Your task to perform on an android device: Show the shopping cart on walmart. Search for "macbook" on walmart, select the first entry, and add it to the cart. Image 0: 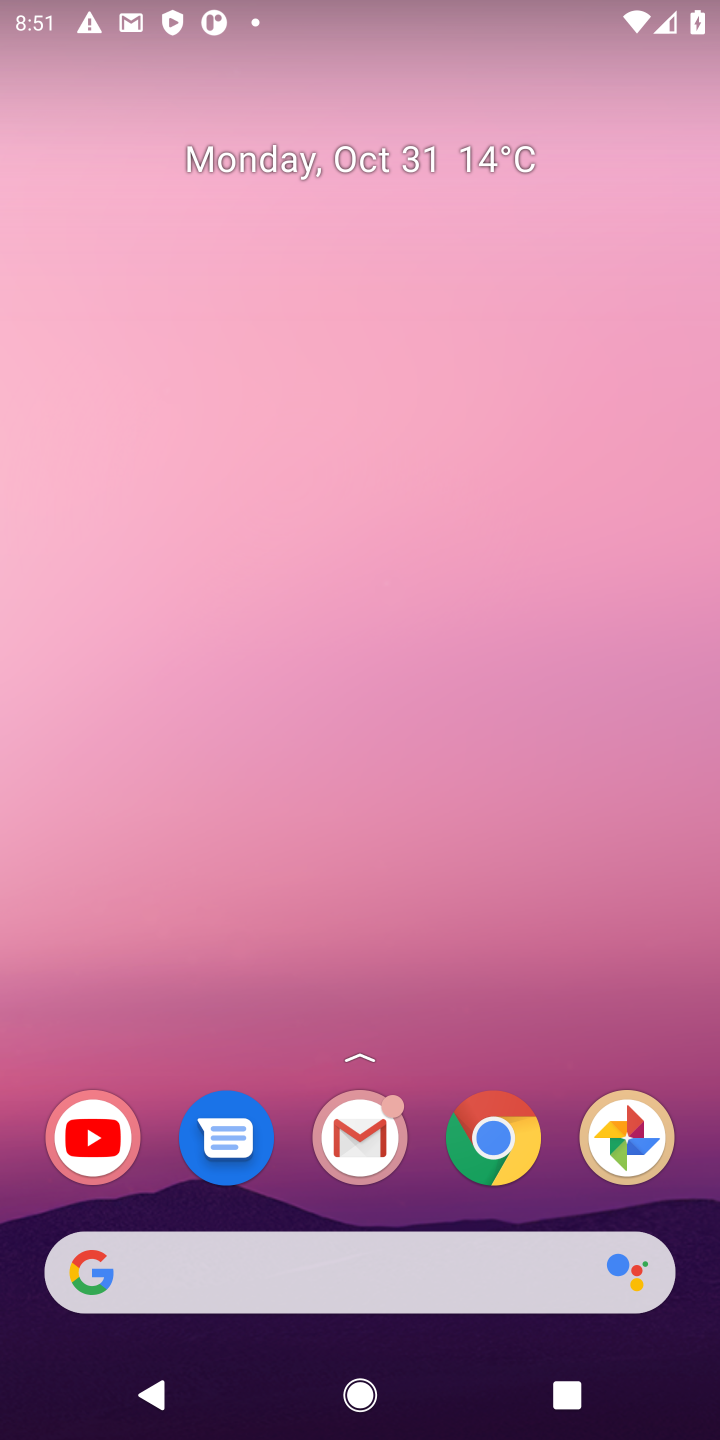
Step 0: click (473, 1149)
Your task to perform on an android device: Show the shopping cart on walmart. Search for "macbook" on walmart, select the first entry, and add it to the cart. Image 1: 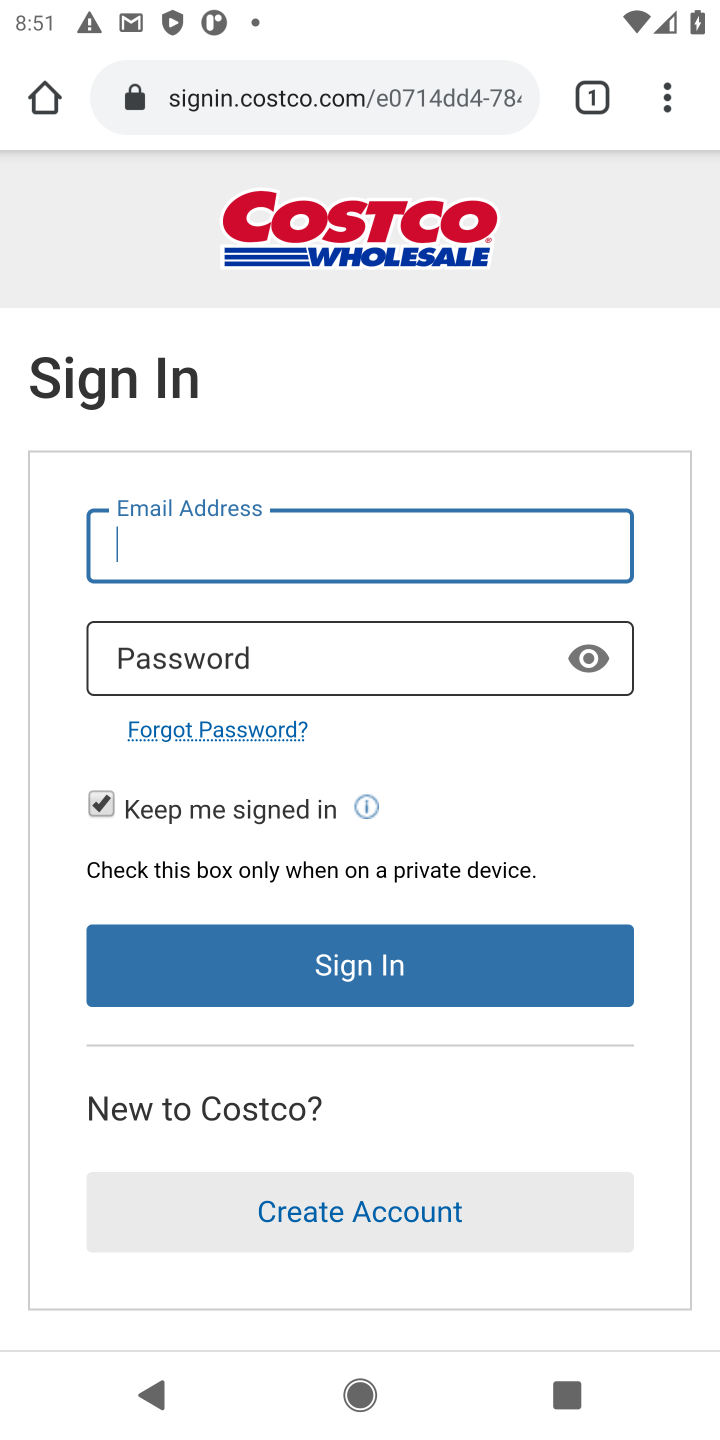
Step 1: click (352, 84)
Your task to perform on an android device: Show the shopping cart on walmart. Search for "macbook" on walmart, select the first entry, and add it to the cart. Image 2: 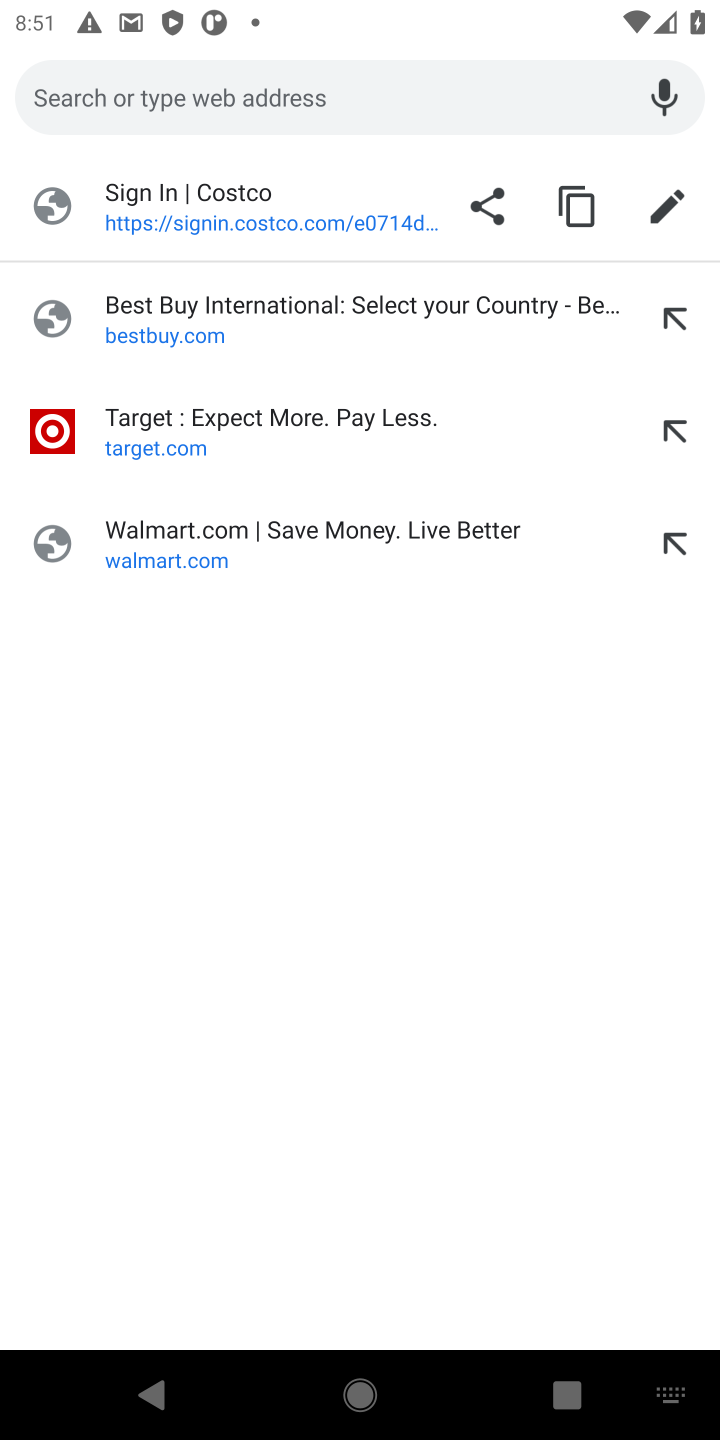
Step 2: type "walmart"
Your task to perform on an android device: Show the shopping cart on walmart. Search for "macbook" on walmart, select the first entry, and add it to the cart. Image 3: 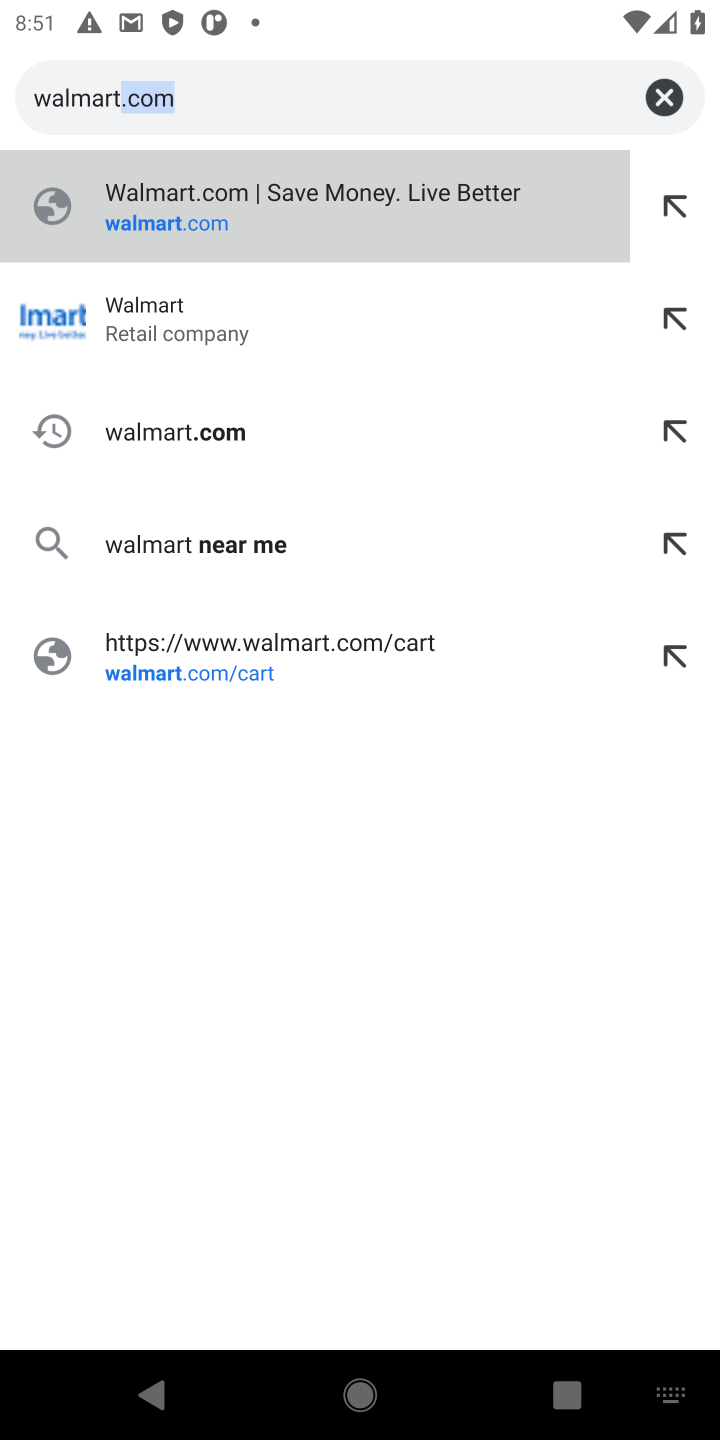
Step 3: type ""
Your task to perform on an android device: Show the shopping cart on walmart. Search for "macbook" on walmart, select the first entry, and add it to the cart. Image 4: 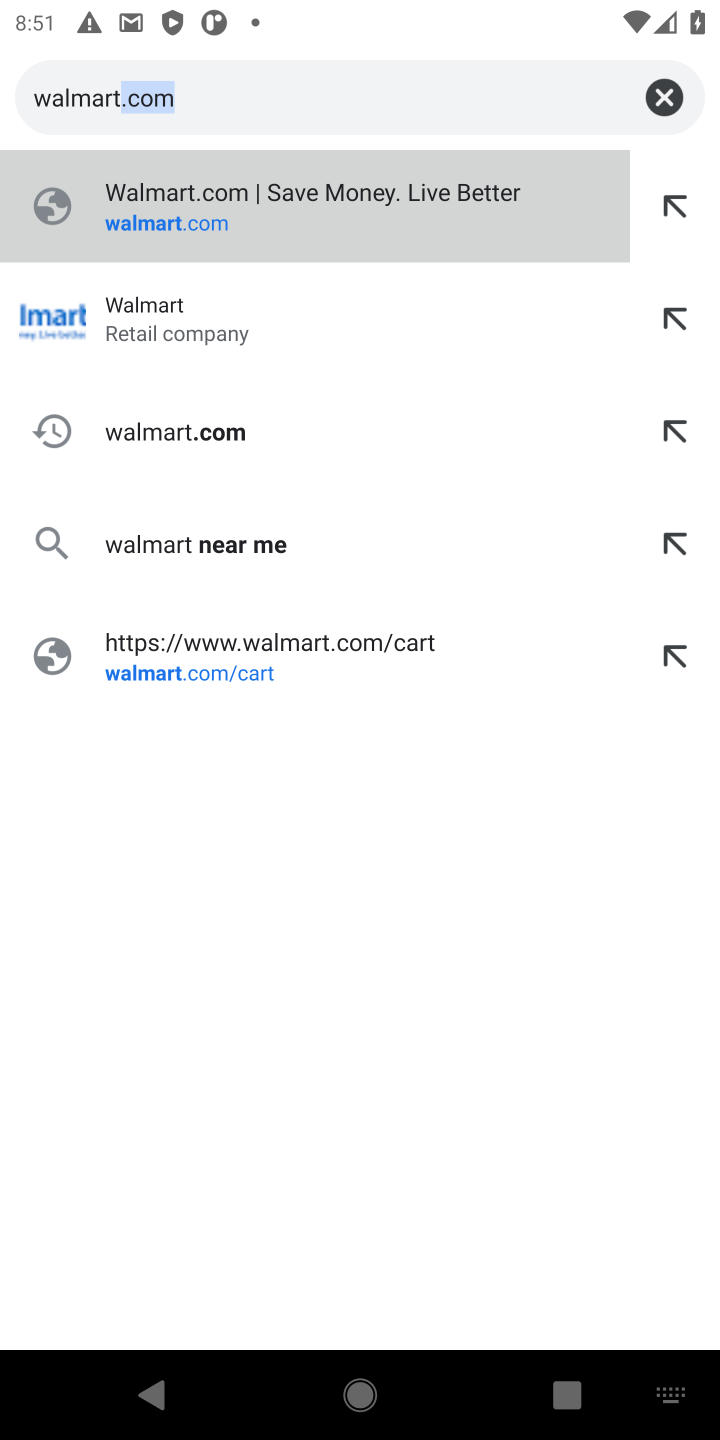
Step 4: click (119, 310)
Your task to perform on an android device: Show the shopping cart on walmart. Search for "macbook" on walmart, select the first entry, and add it to the cart. Image 5: 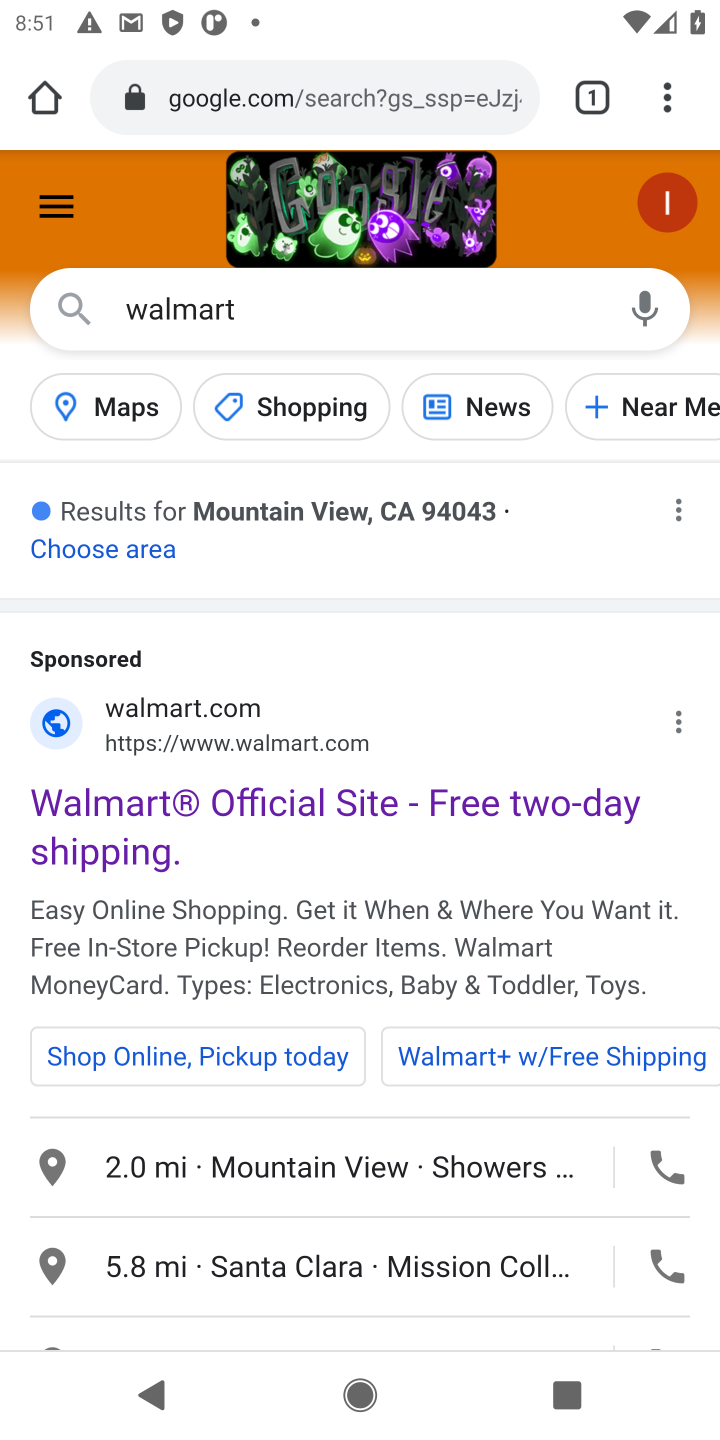
Step 5: drag from (280, 893) to (350, 451)
Your task to perform on an android device: Show the shopping cart on walmart. Search for "macbook" on walmart, select the first entry, and add it to the cart. Image 6: 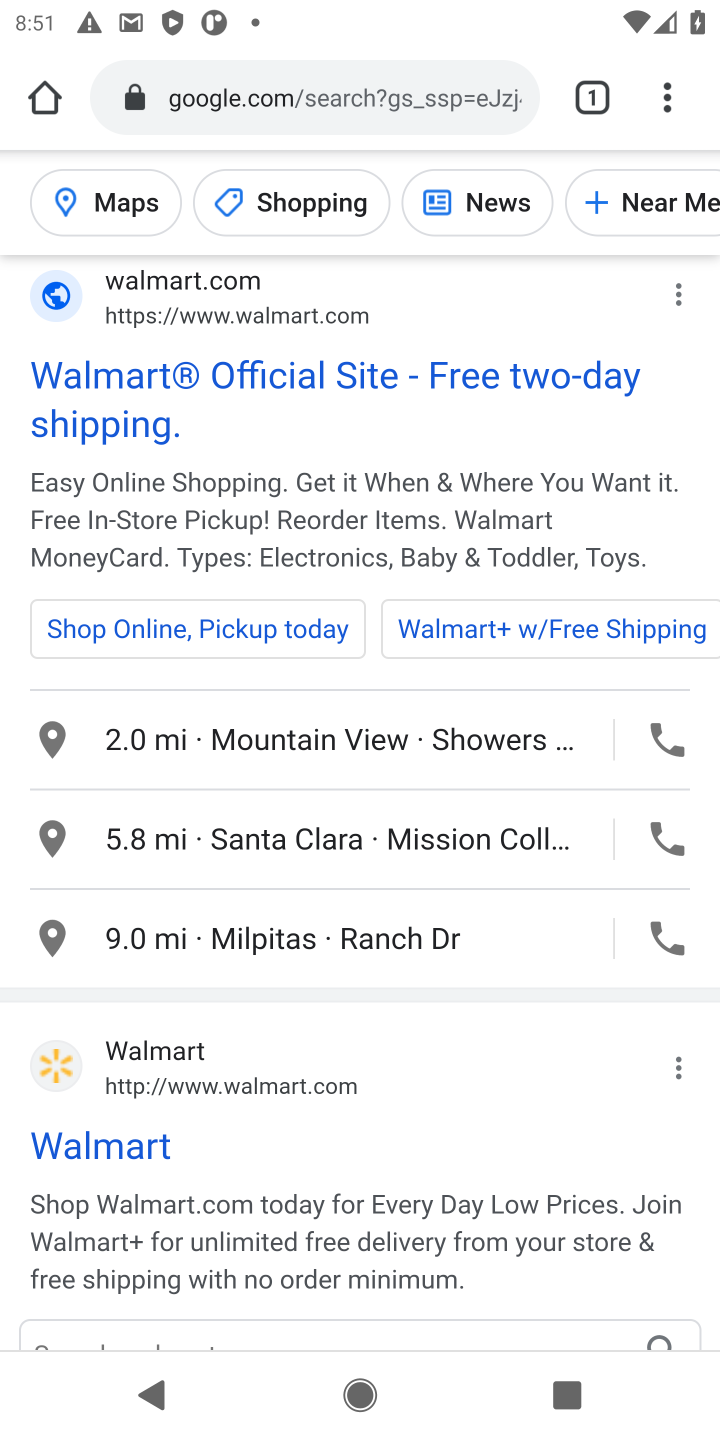
Step 6: click (106, 1139)
Your task to perform on an android device: Show the shopping cart on walmart. Search for "macbook" on walmart, select the first entry, and add it to the cart. Image 7: 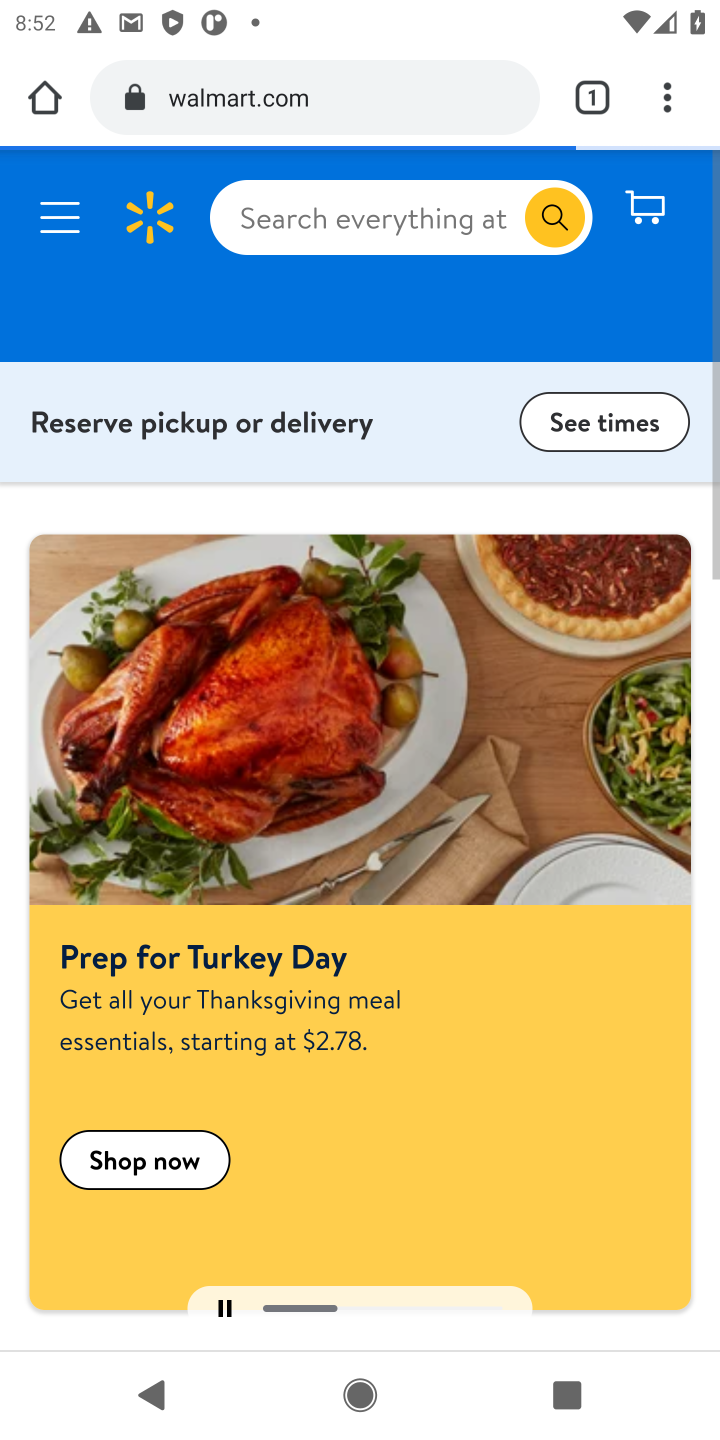
Step 7: click (268, 211)
Your task to perform on an android device: Show the shopping cart on walmart. Search for "macbook" on walmart, select the first entry, and add it to the cart. Image 8: 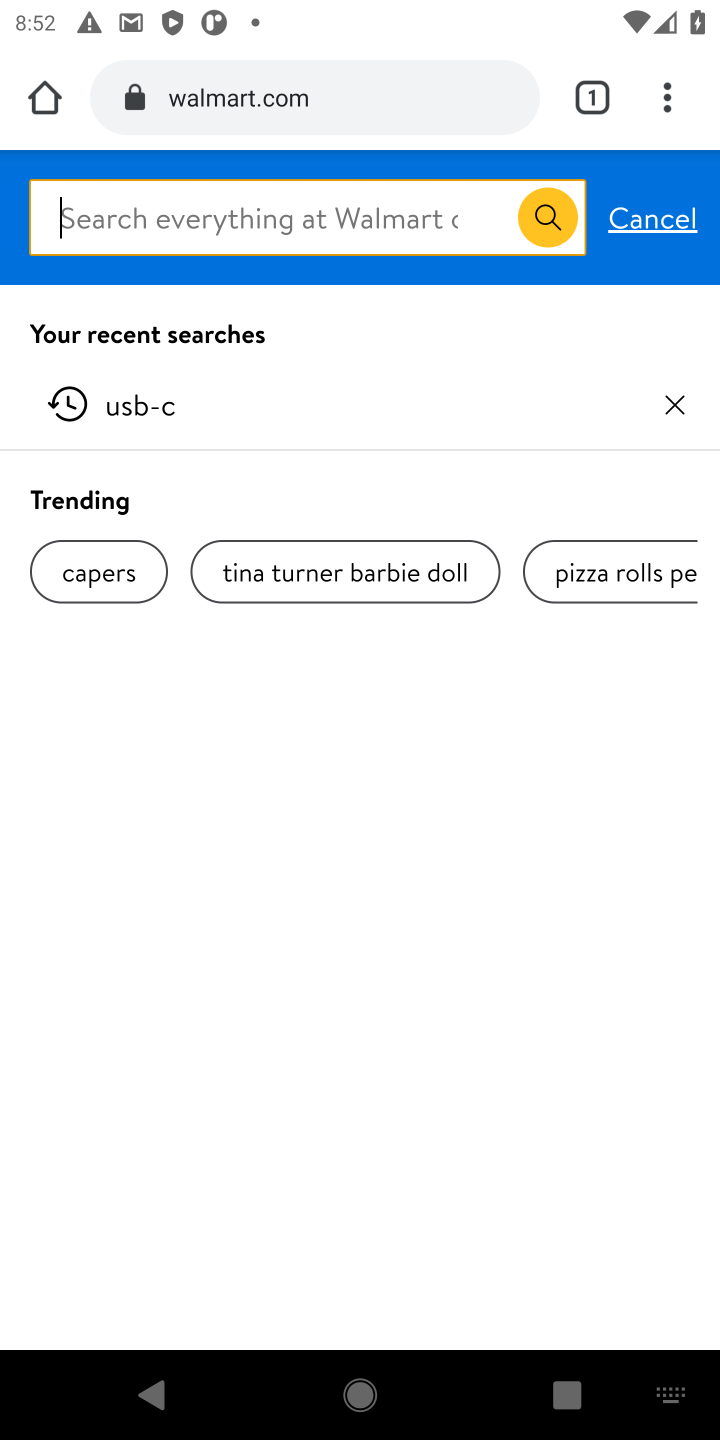
Step 8: type "macbook"
Your task to perform on an android device: Show the shopping cart on walmart. Search for "macbook" on walmart, select the first entry, and add it to the cart. Image 9: 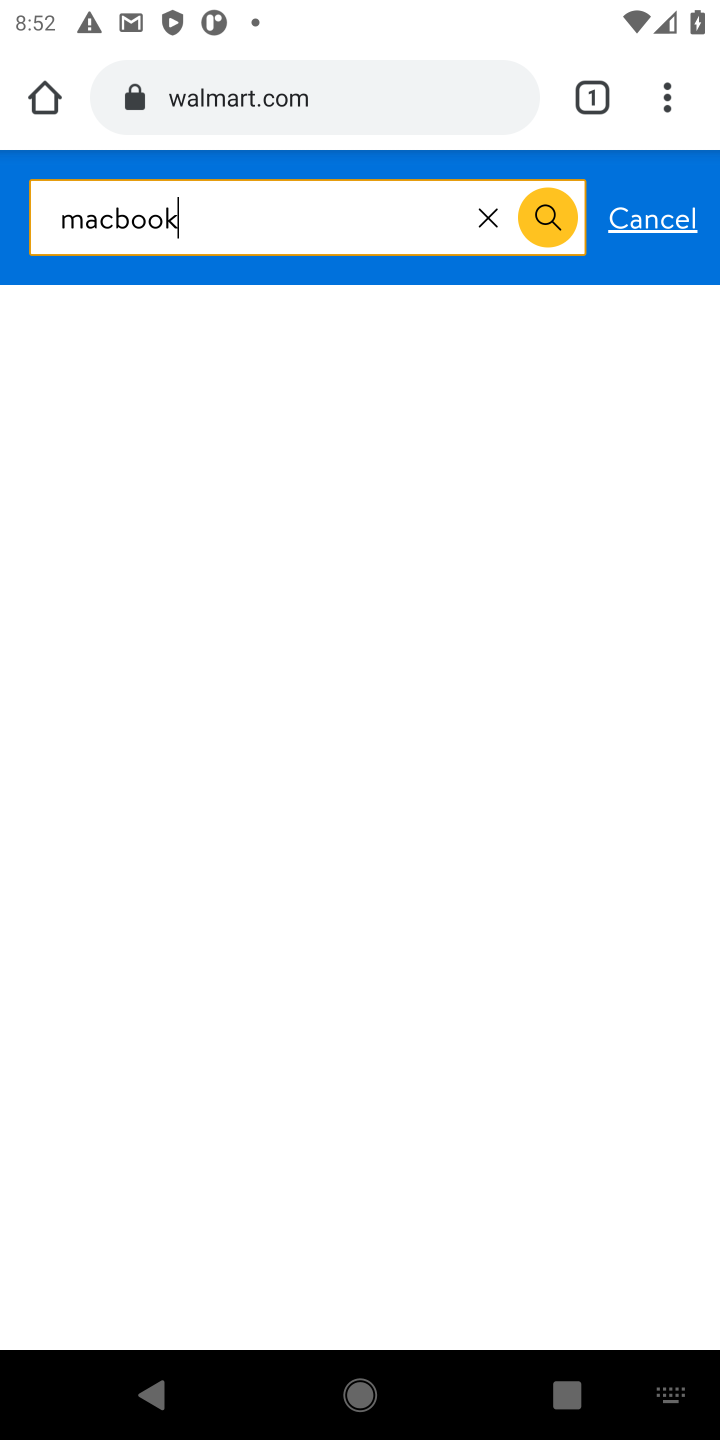
Step 9: type ""
Your task to perform on an android device: Show the shopping cart on walmart. Search for "macbook" on walmart, select the first entry, and add it to the cart. Image 10: 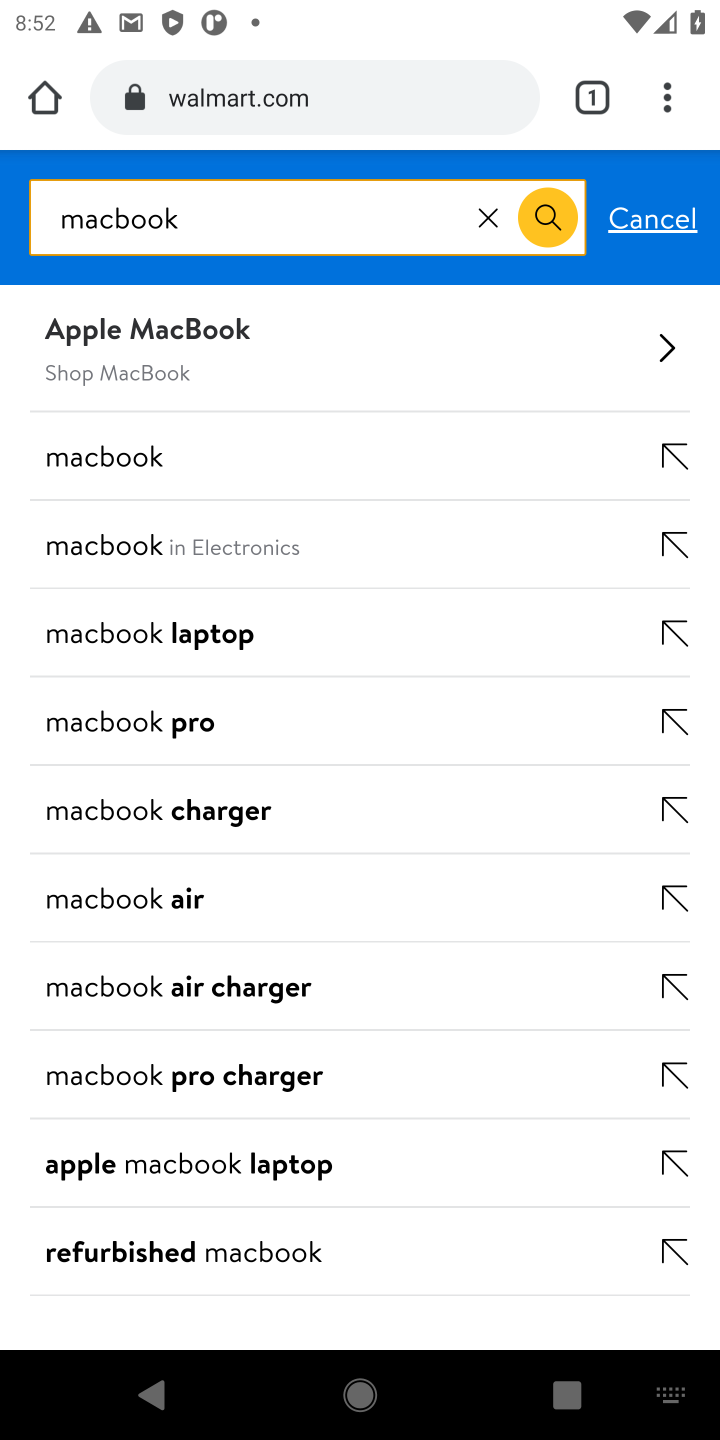
Step 10: click (133, 457)
Your task to perform on an android device: Show the shopping cart on walmart. Search for "macbook" on walmart, select the first entry, and add it to the cart. Image 11: 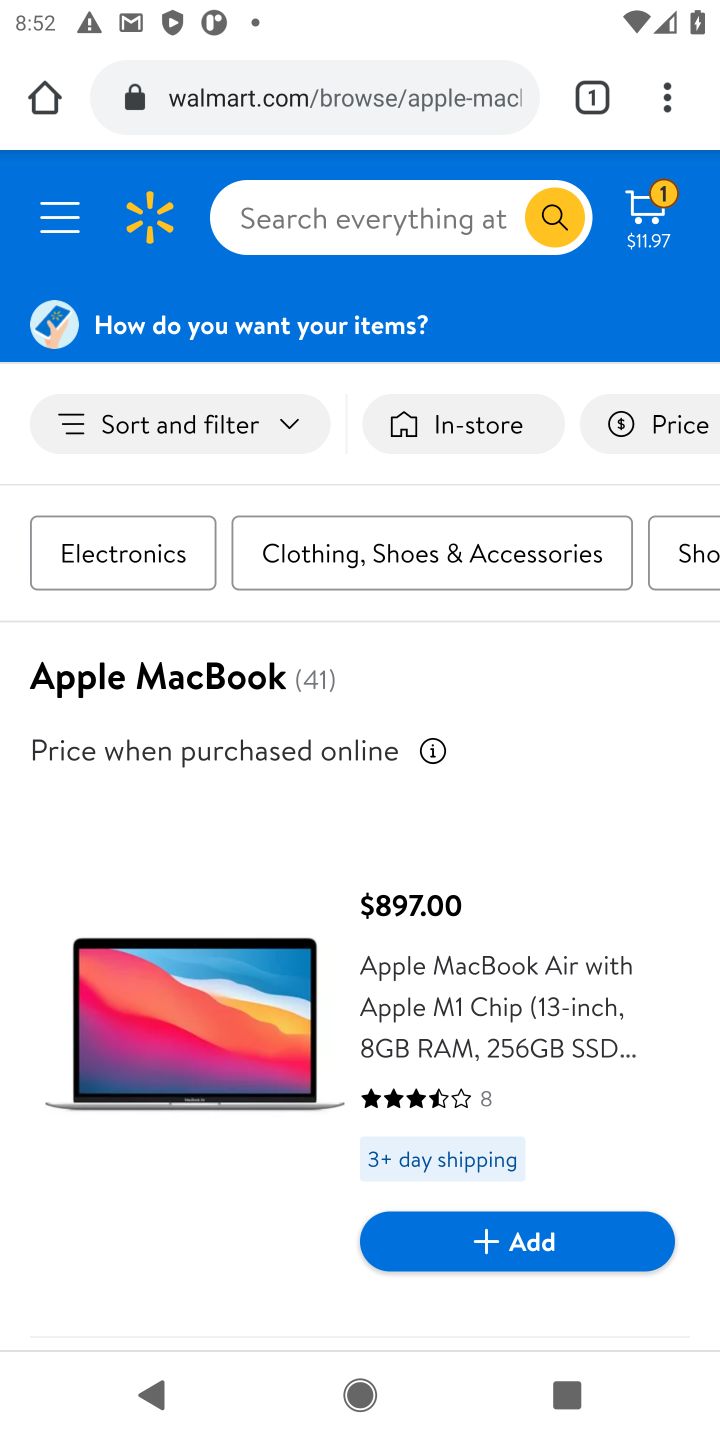
Step 11: drag from (167, 1085) to (166, 624)
Your task to perform on an android device: Show the shopping cart on walmart. Search for "macbook" on walmart, select the first entry, and add it to the cart. Image 12: 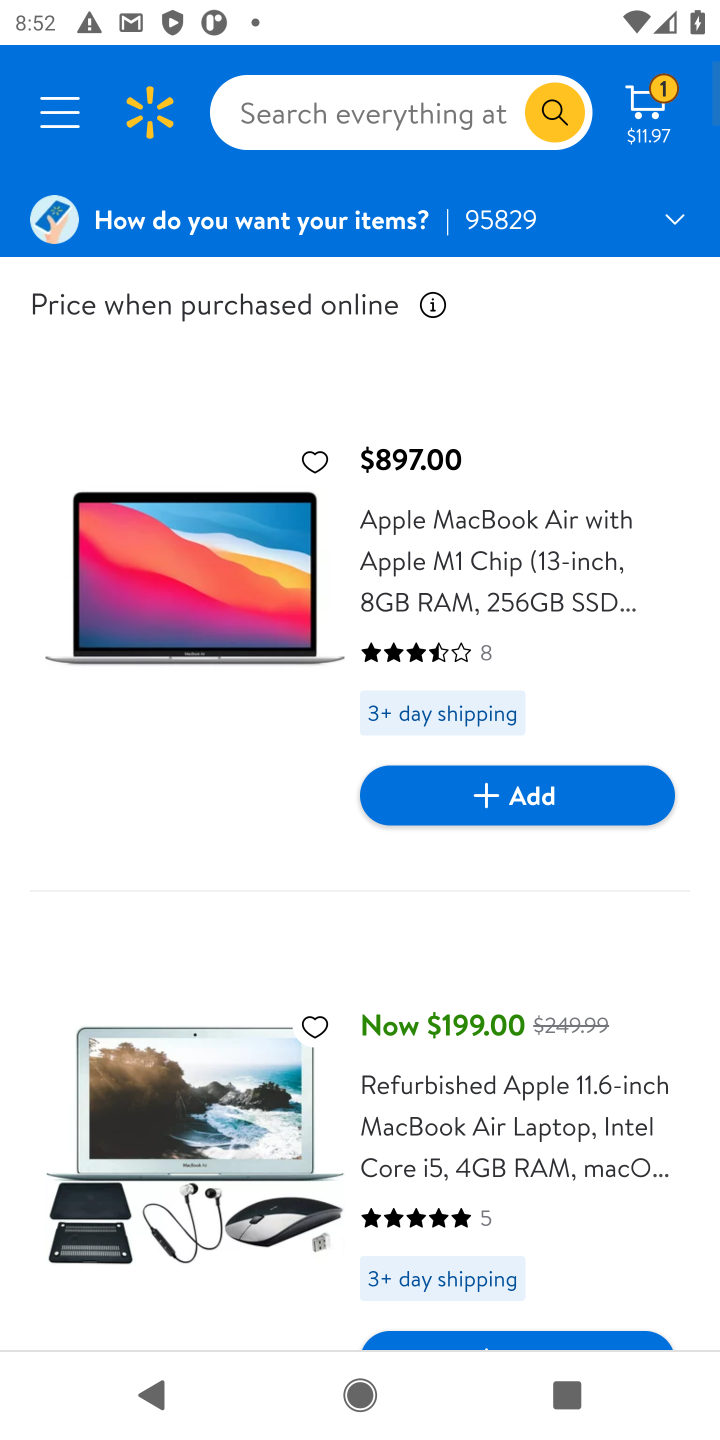
Step 12: drag from (235, 1014) to (195, 694)
Your task to perform on an android device: Show the shopping cart on walmart. Search for "macbook" on walmart, select the first entry, and add it to the cart. Image 13: 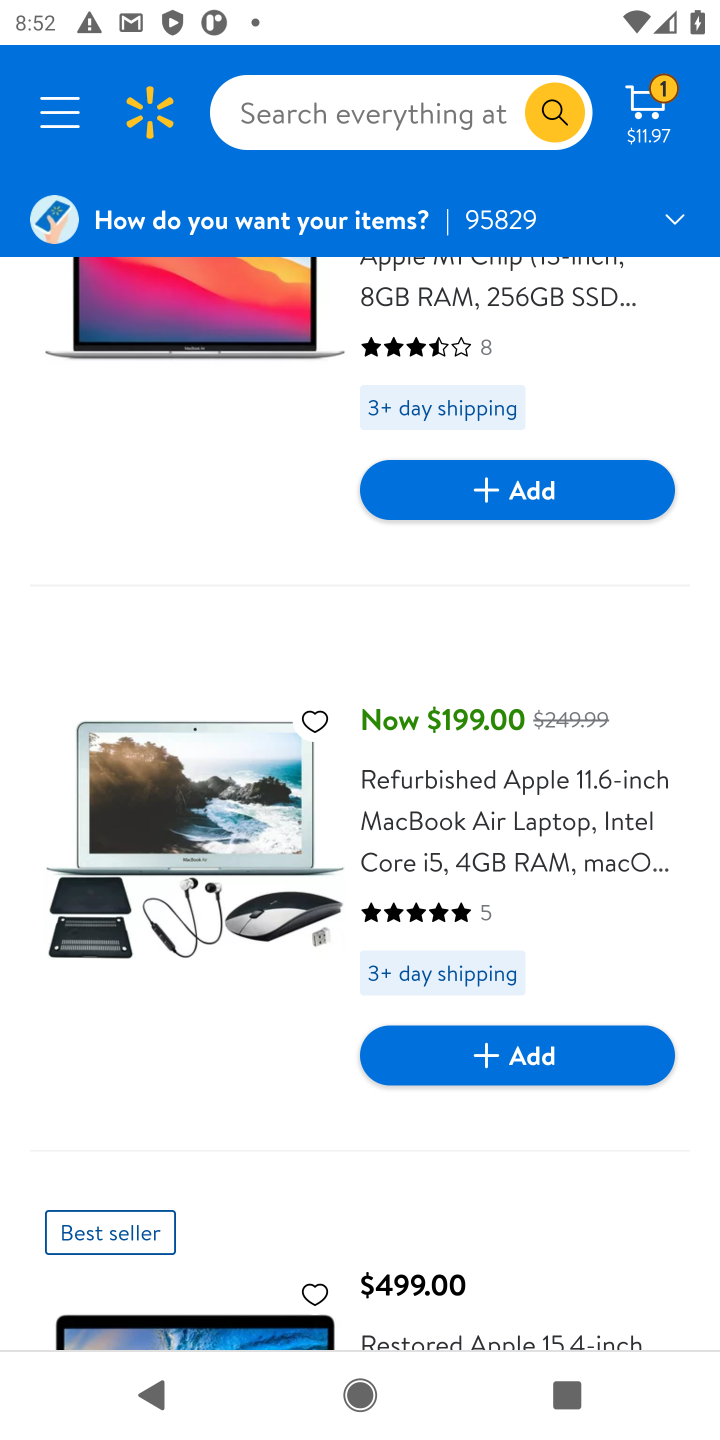
Step 13: drag from (129, 1100) to (147, 661)
Your task to perform on an android device: Show the shopping cart on walmart. Search for "macbook" on walmart, select the first entry, and add it to the cart. Image 14: 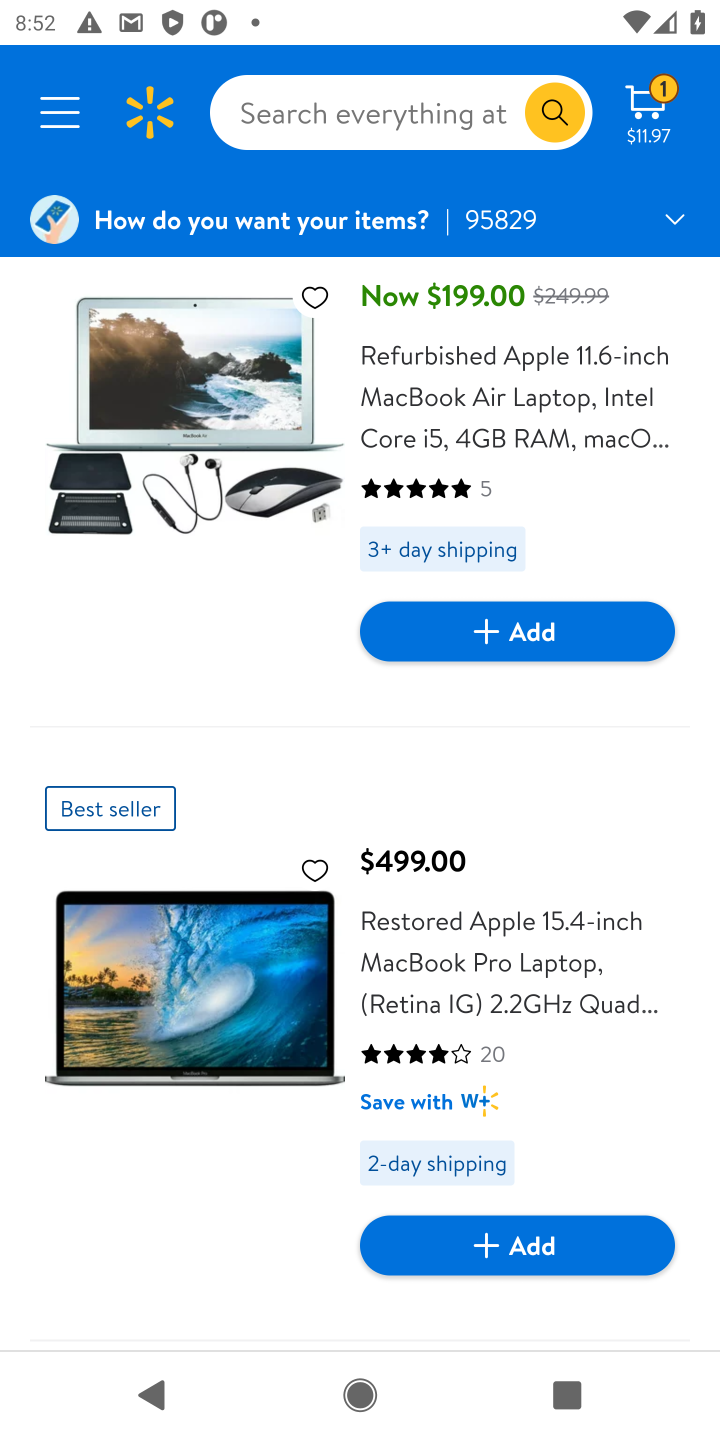
Step 14: click (383, 998)
Your task to perform on an android device: Show the shopping cart on walmart. Search for "macbook" on walmart, select the first entry, and add it to the cart. Image 15: 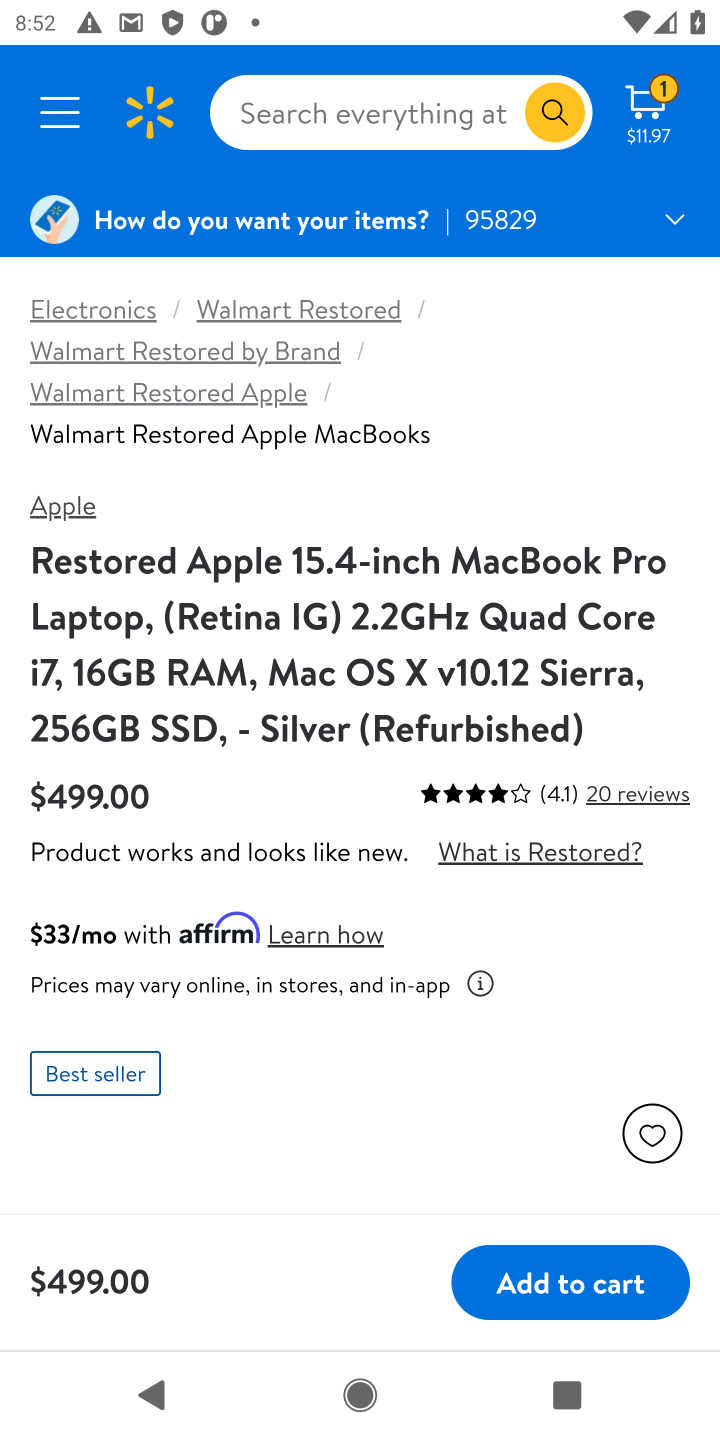
Step 15: drag from (173, 1054) to (260, 613)
Your task to perform on an android device: Show the shopping cart on walmart. Search for "macbook" on walmart, select the first entry, and add it to the cart. Image 16: 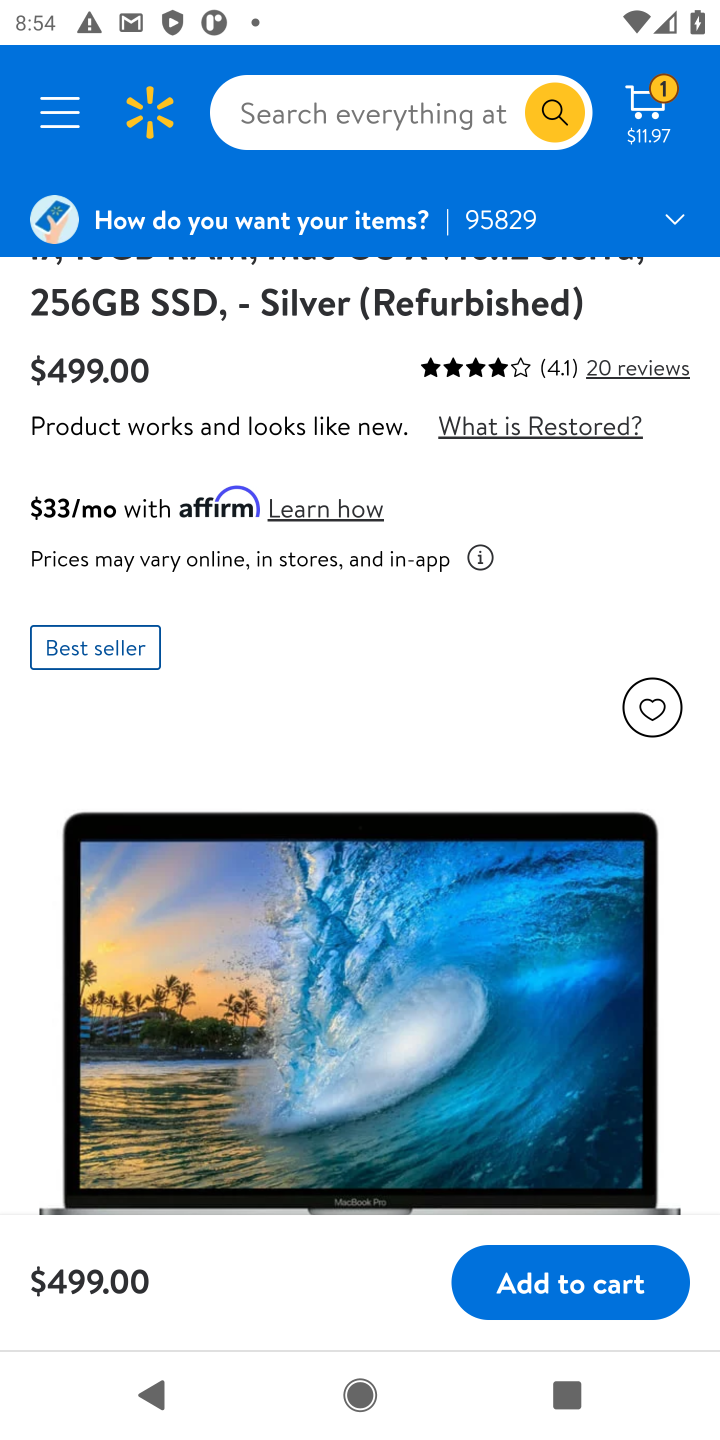
Step 16: drag from (327, 1142) to (445, 382)
Your task to perform on an android device: Show the shopping cart on walmart. Search for "macbook" on walmart, select the first entry, and add it to the cart. Image 17: 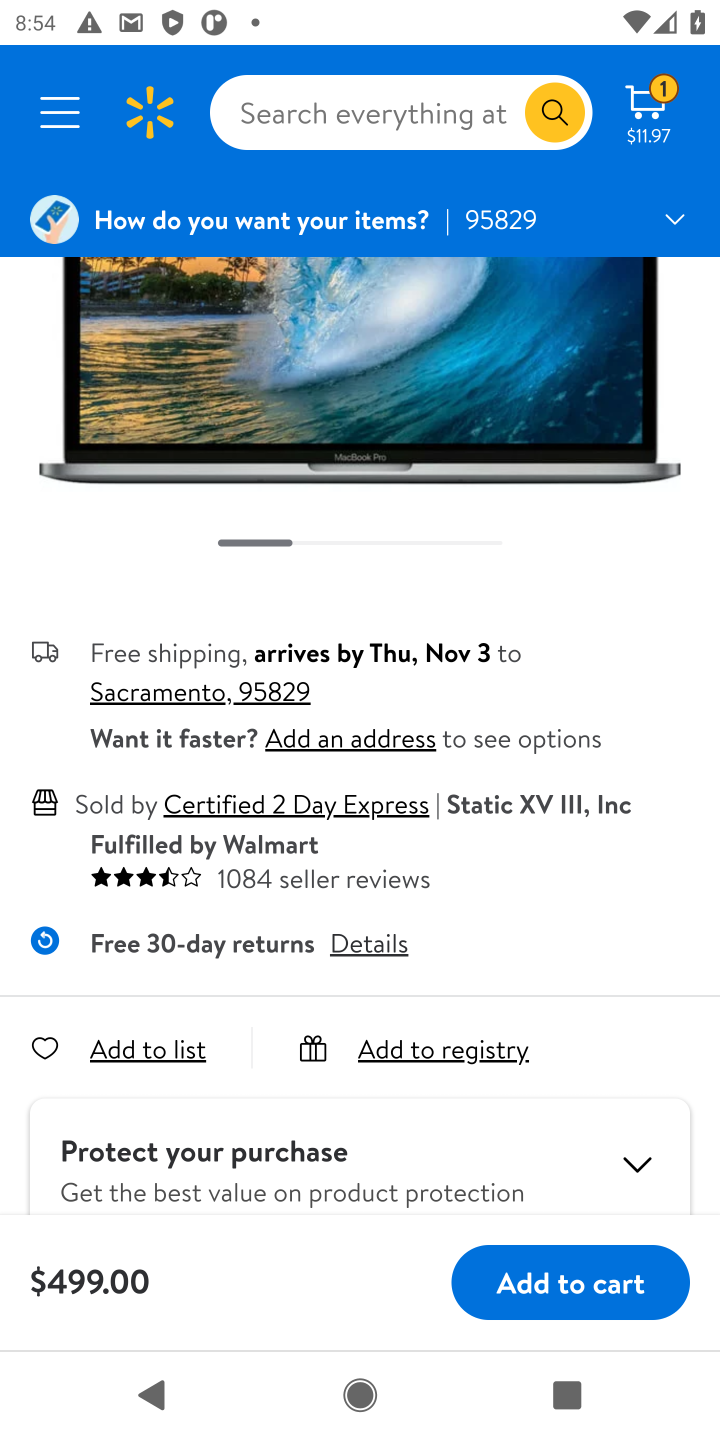
Step 17: click (562, 1300)
Your task to perform on an android device: Show the shopping cart on walmart. Search for "macbook" on walmart, select the first entry, and add it to the cart. Image 18: 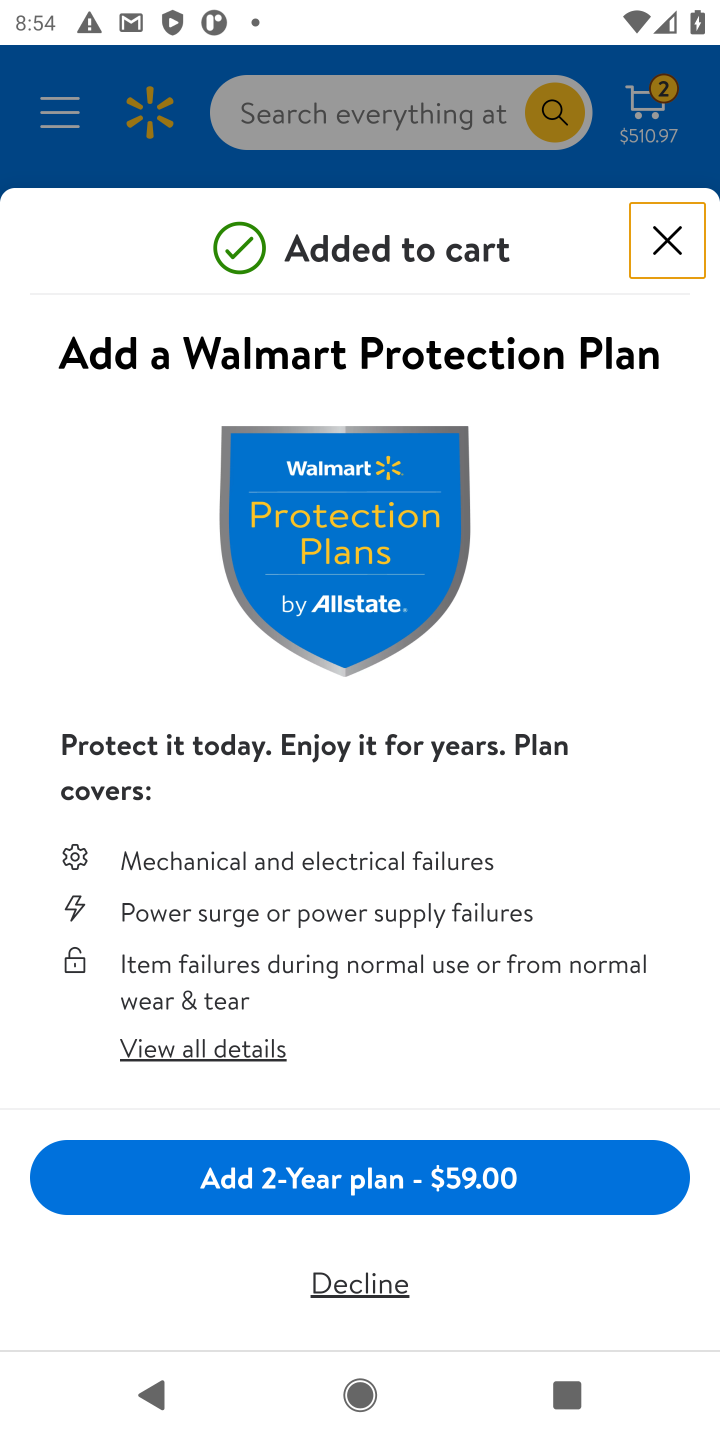
Step 18: click (633, 113)
Your task to perform on an android device: Show the shopping cart on walmart. Search for "macbook" on walmart, select the first entry, and add it to the cart. Image 19: 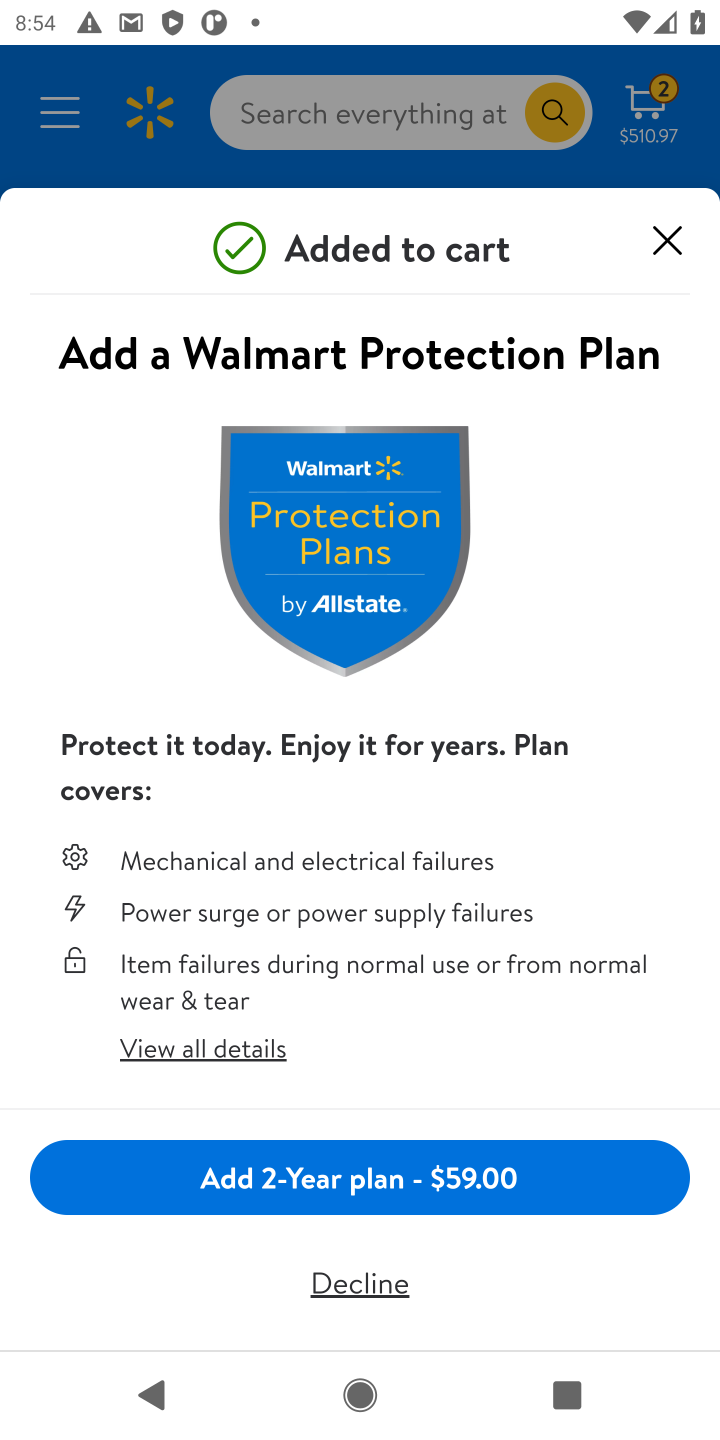
Step 19: drag from (304, 693) to (342, 181)
Your task to perform on an android device: Show the shopping cart on walmart. Search for "macbook" on walmart, select the first entry, and add it to the cart. Image 20: 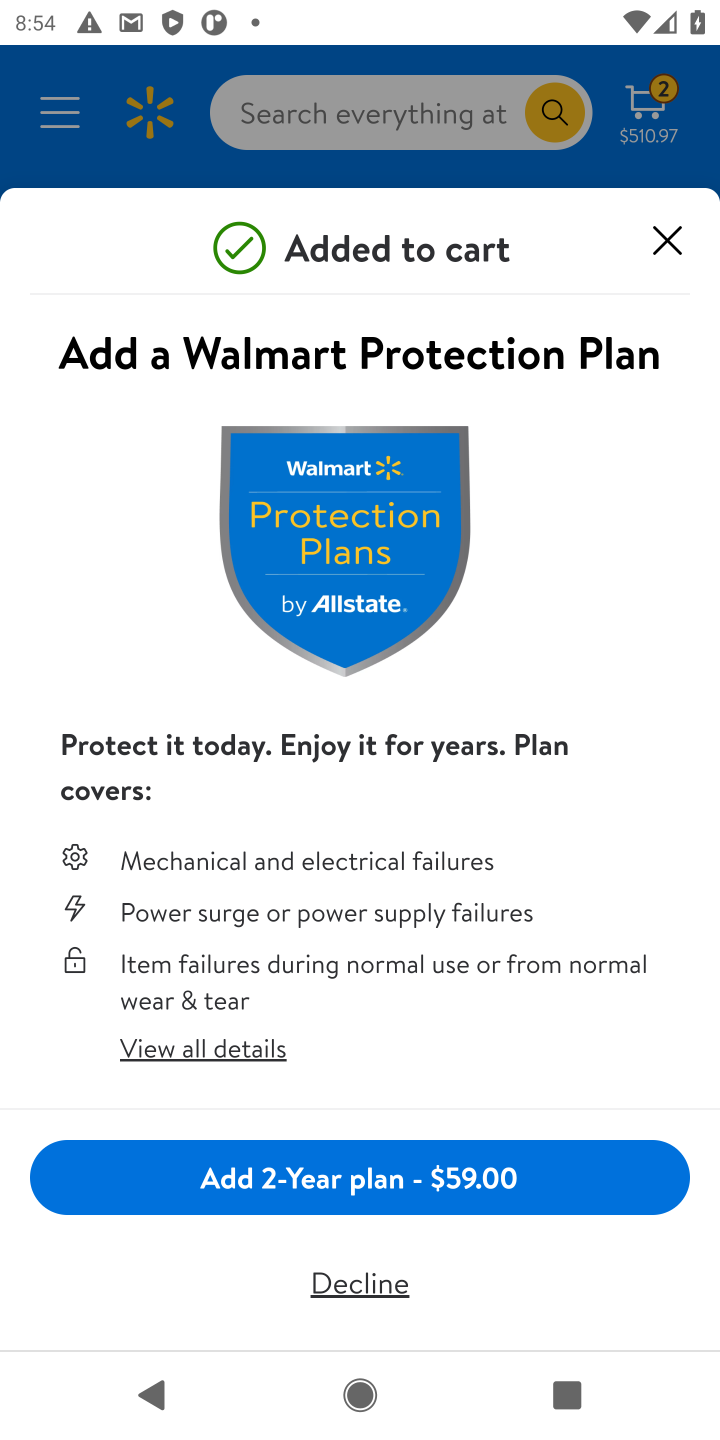
Step 20: click (664, 230)
Your task to perform on an android device: Show the shopping cart on walmart. Search for "macbook" on walmart, select the first entry, and add it to the cart. Image 21: 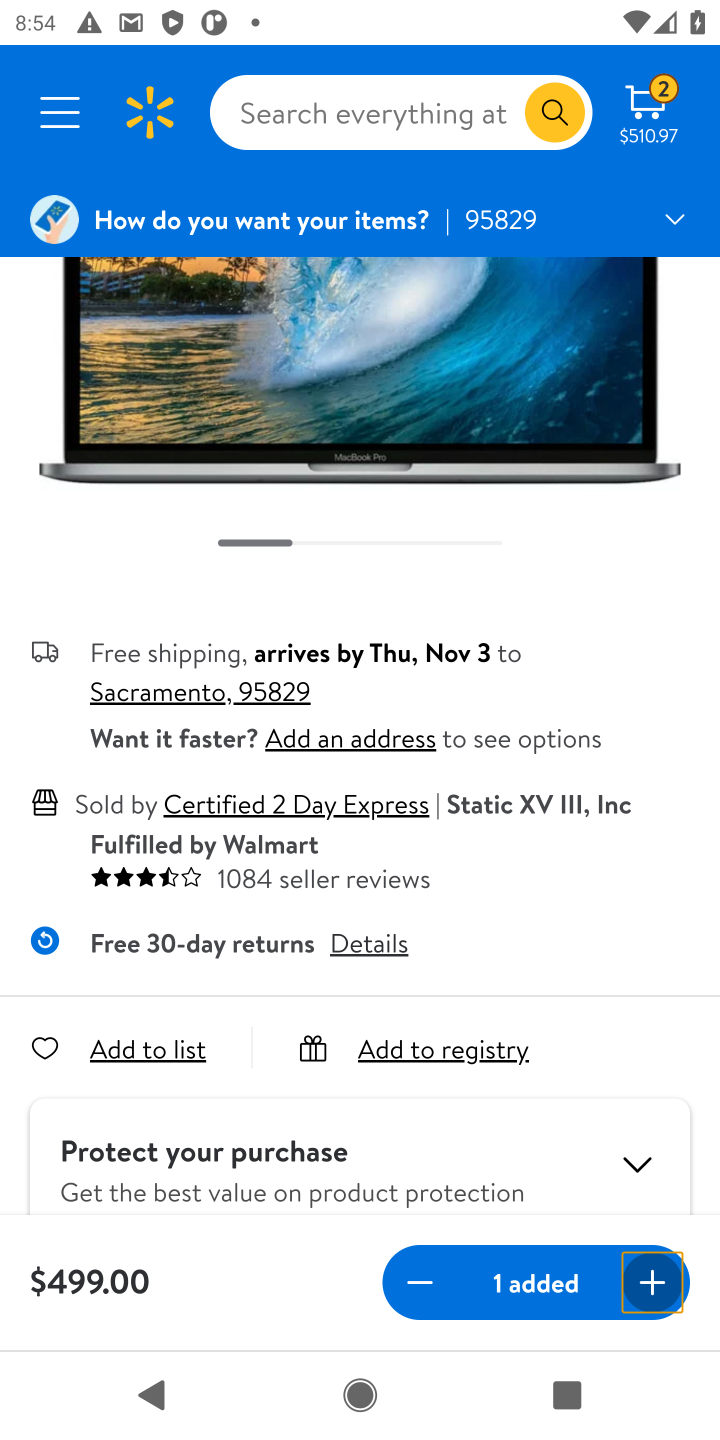
Step 21: drag from (109, 941) to (132, 463)
Your task to perform on an android device: Show the shopping cart on walmart. Search for "macbook" on walmart, select the first entry, and add it to the cart. Image 22: 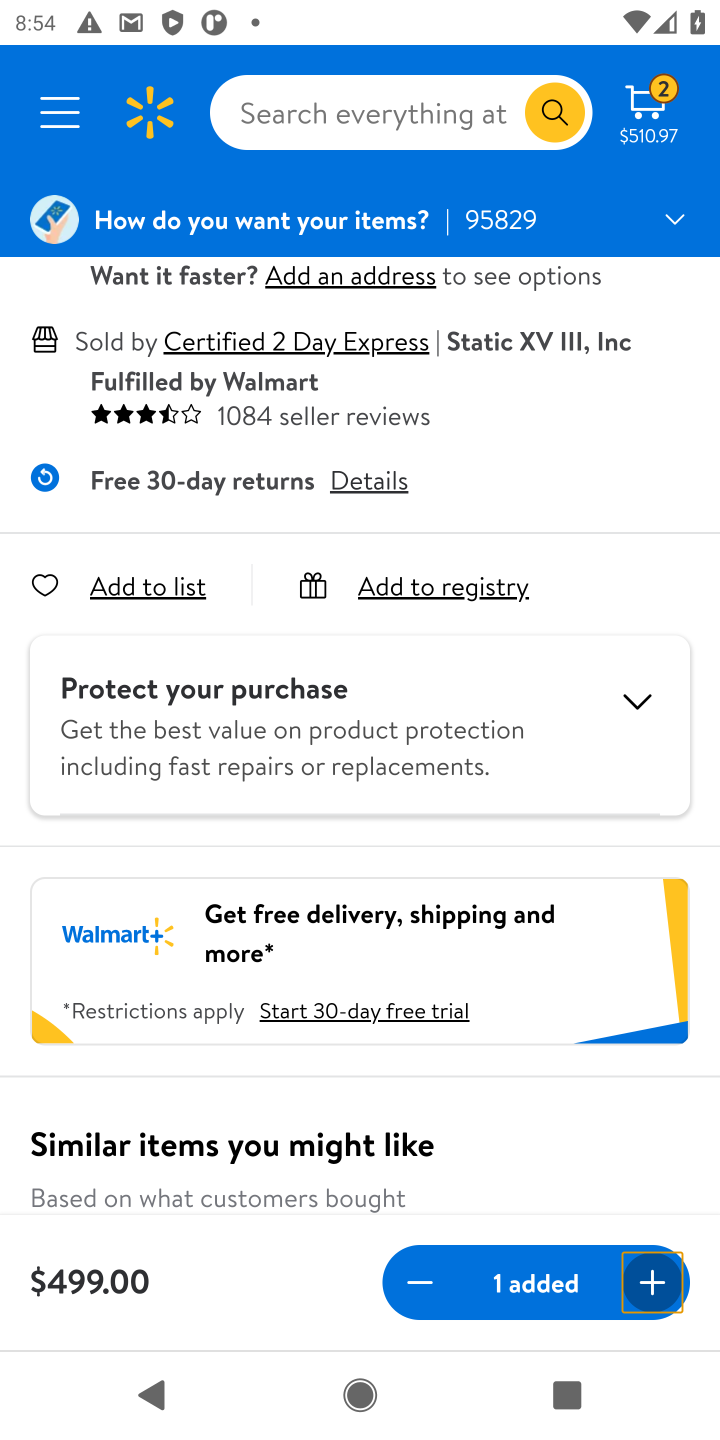
Step 22: click (636, 99)
Your task to perform on an android device: Show the shopping cart on walmart. Search for "macbook" on walmart, select the first entry, and add it to the cart. Image 23: 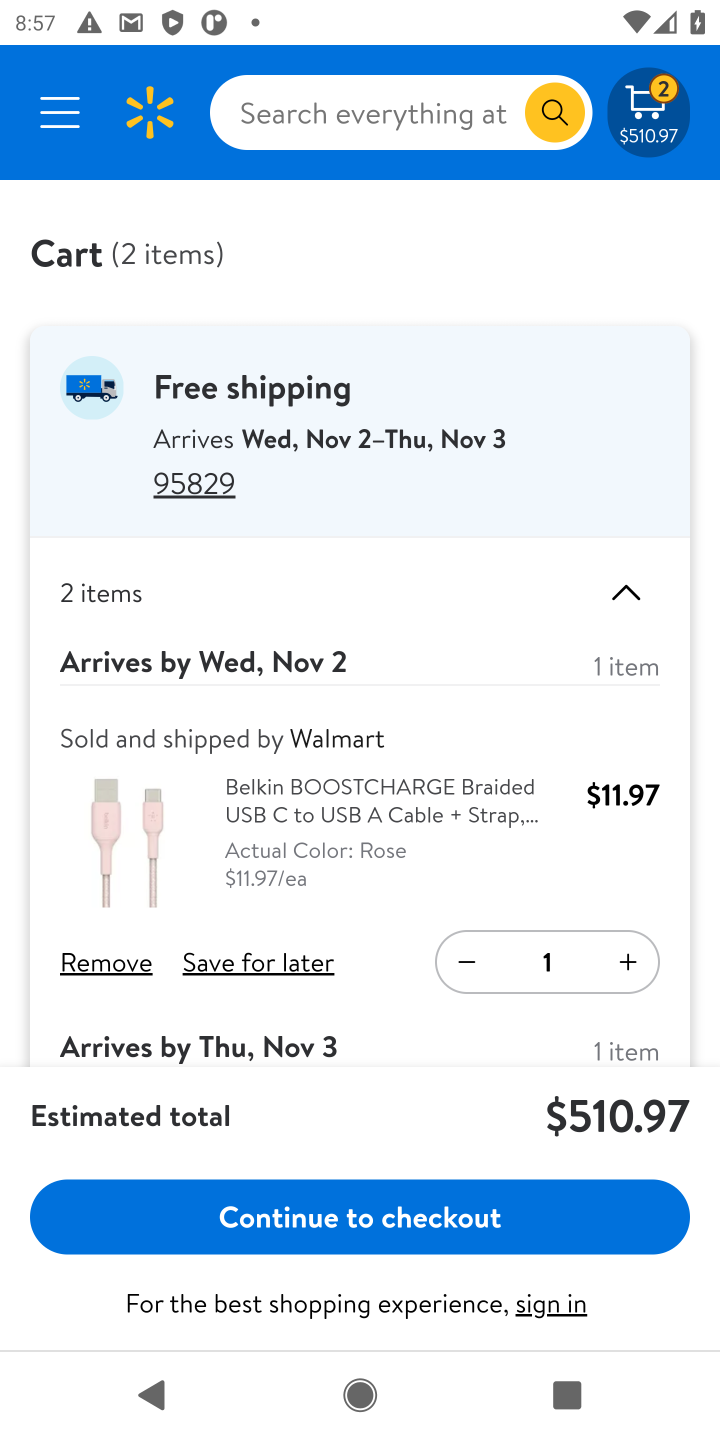
Step 23: task complete